Your task to perform on an android device: toggle improve location accuracy Image 0: 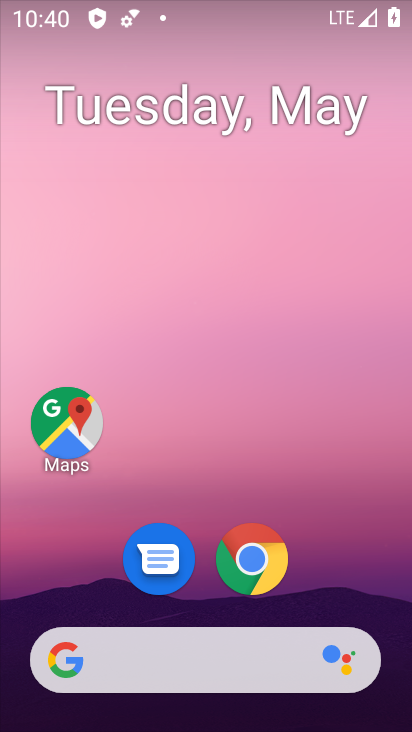
Step 0: drag from (370, 577) to (332, 190)
Your task to perform on an android device: toggle improve location accuracy Image 1: 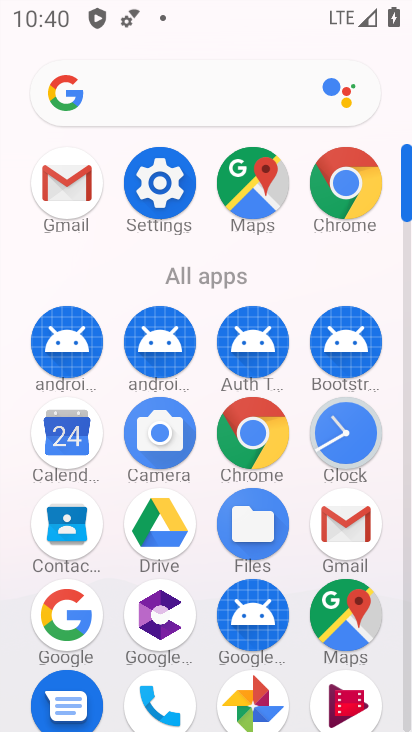
Step 1: click (178, 164)
Your task to perform on an android device: toggle improve location accuracy Image 2: 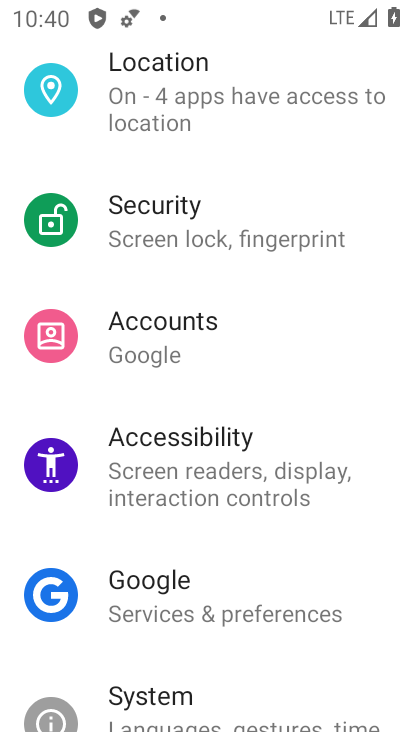
Step 2: drag from (333, 584) to (310, 269)
Your task to perform on an android device: toggle improve location accuracy Image 3: 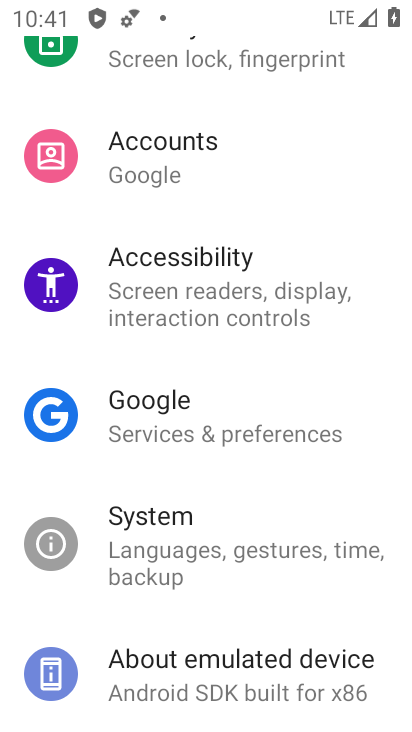
Step 3: drag from (313, 193) to (257, 614)
Your task to perform on an android device: toggle improve location accuracy Image 4: 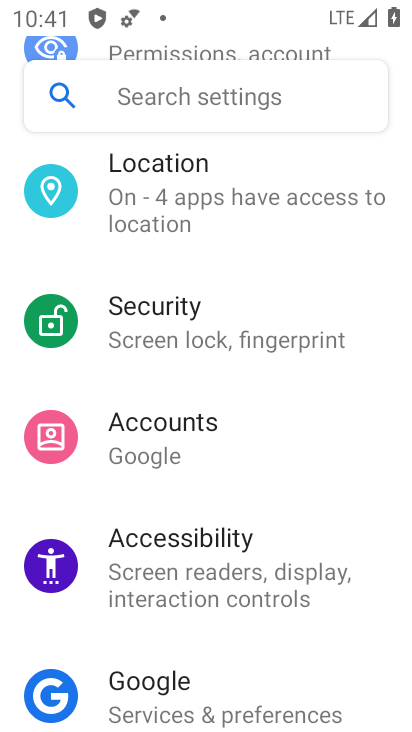
Step 4: click (247, 209)
Your task to perform on an android device: toggle improve location accuracy Image 5: 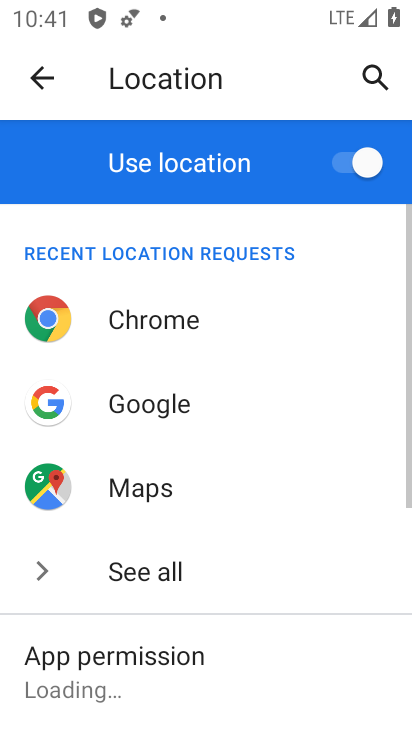
Step 5: drag from (273, 661) to (272, 264)
Your task to perform on an android device: toggle improve location accuracy Image 6: 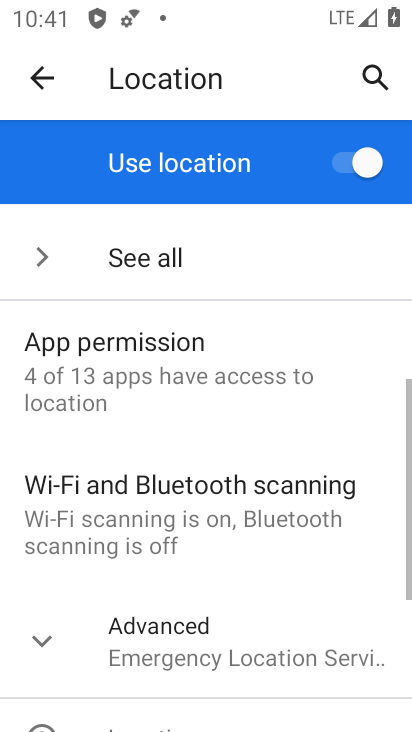
Step 6: drag from (323, 586) to (324, 308)
Your task to perform on an android device: toggle improve location accuracy Image 7: 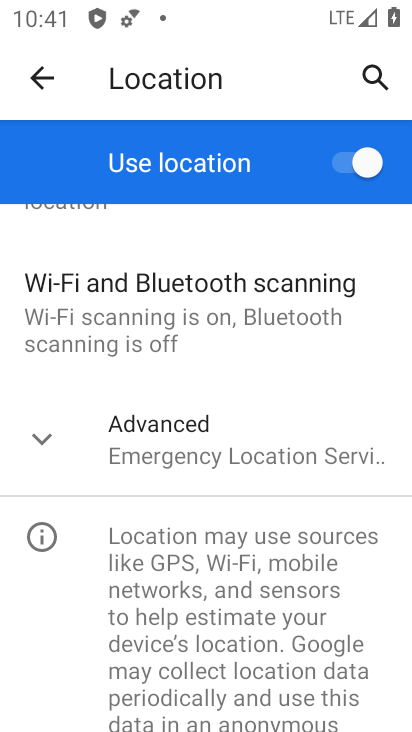
Step 7: click (307, 435)
Your task to perform on an android device: toggle improve location accuracy Image 8: 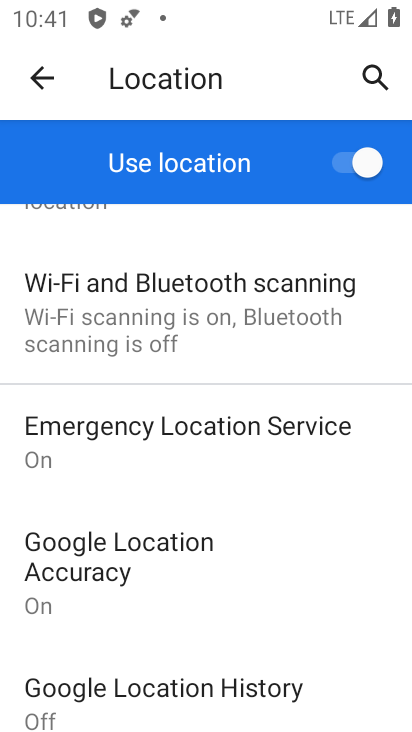
Step 8: click (136, 571)
Your task to perform on an android device: toggle improve location accuracy Image 9: 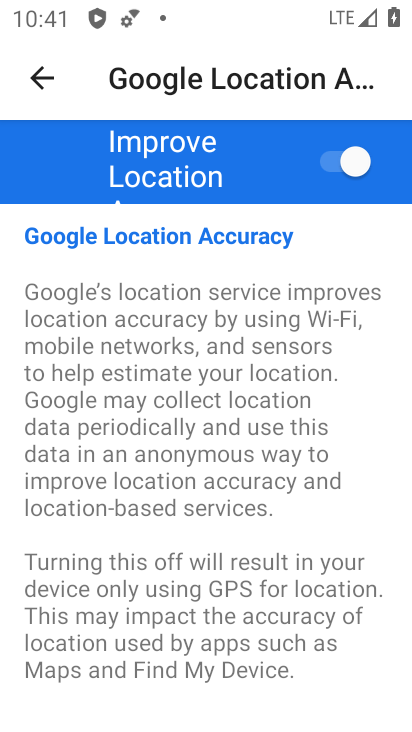
Step 9: click (334, 162)
Your task to perform on an android device: toggle improve location accuracy Image 10: 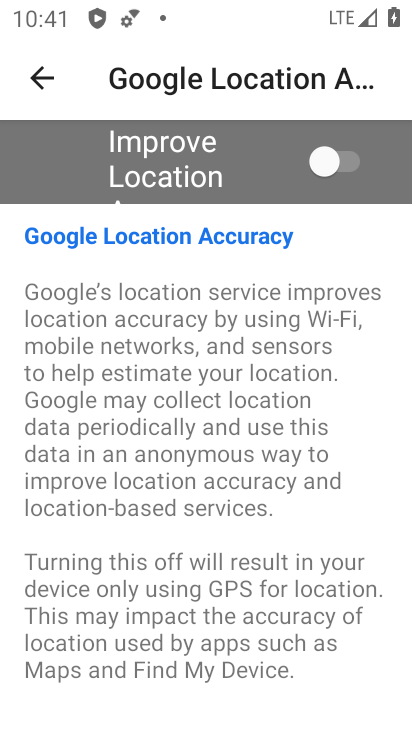
Step 10: task complete